Your task to perform on an android device: Search for hotels in Mexico city Image 0: 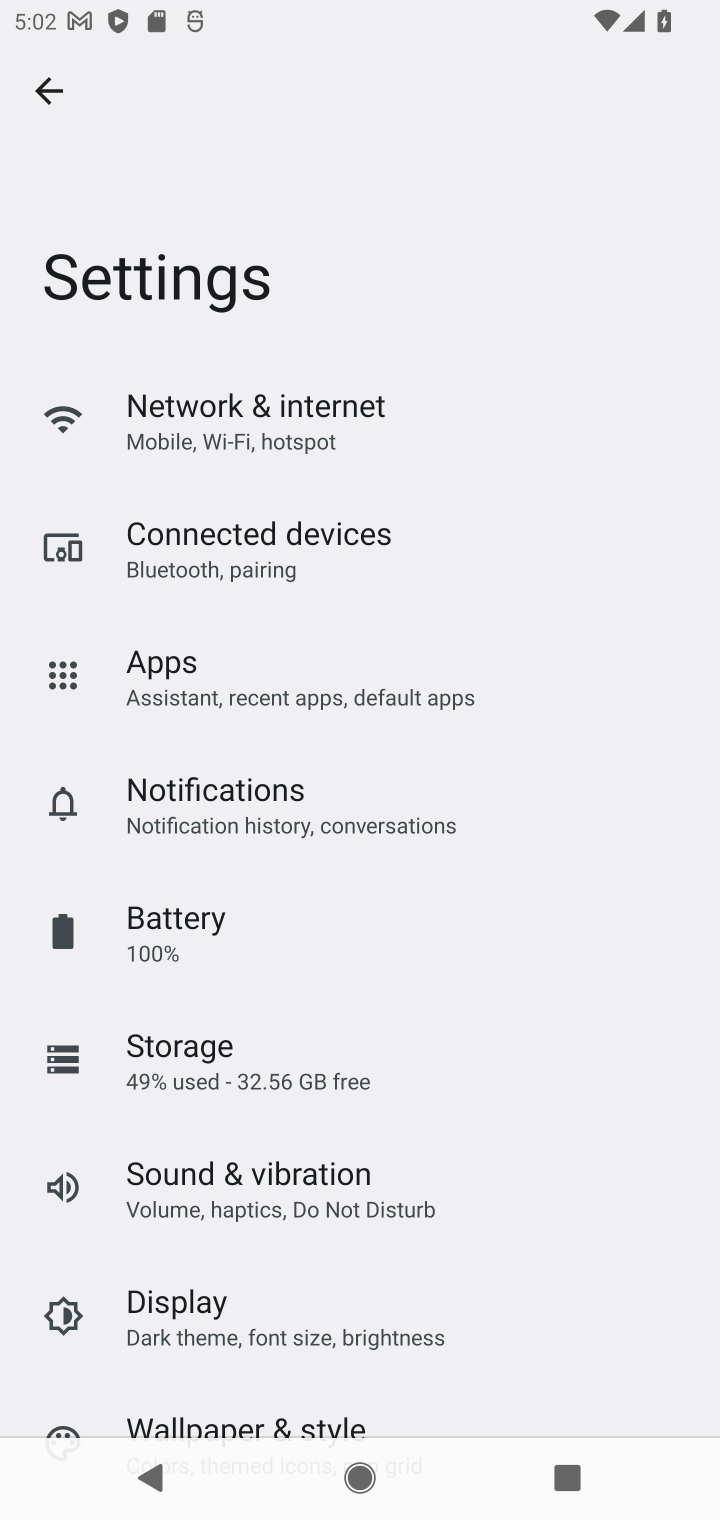
Step 0: press home button
Your task to perform on an android device: Search for hotels in Mexico city Image 1: 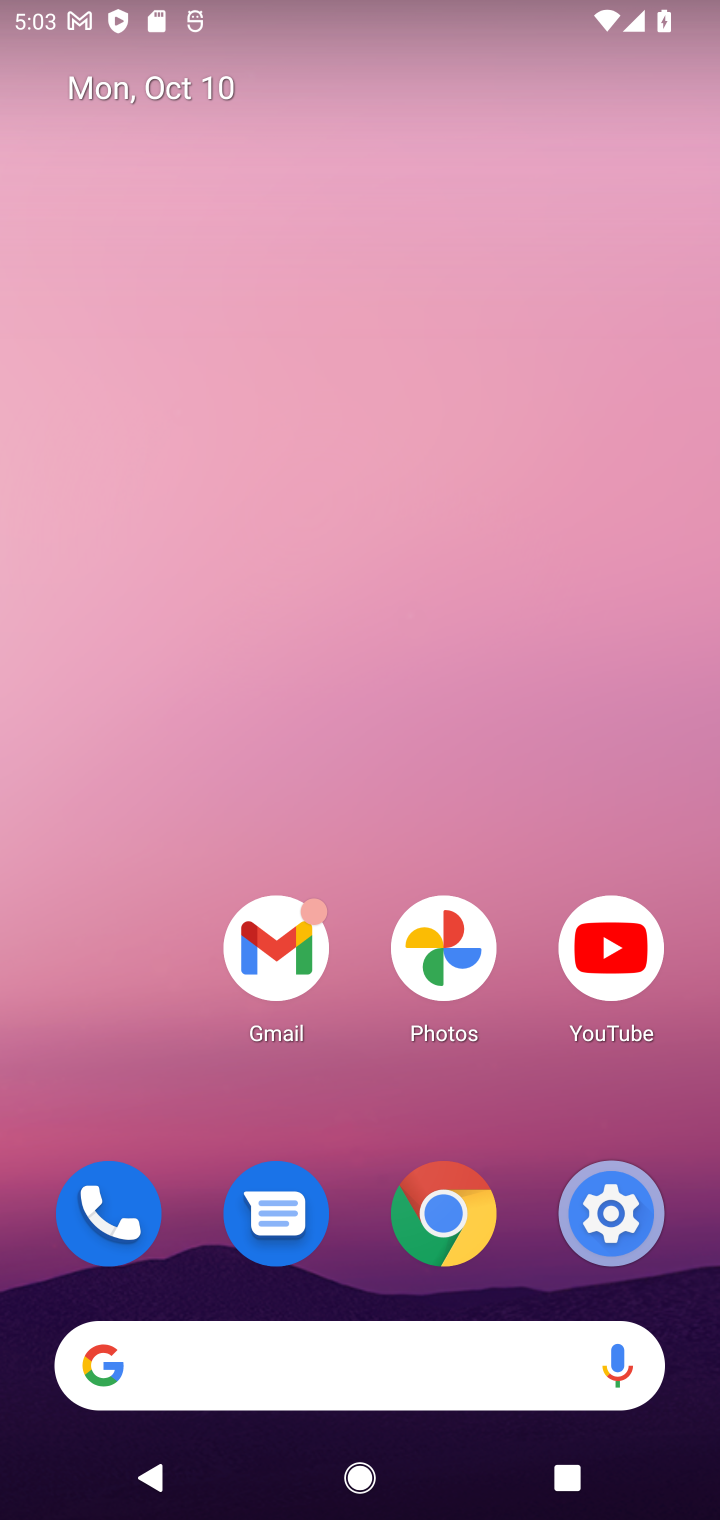
Step 1: click (239, 1354)
Your task to perform on an android device: Search for hotels in Mexico city Image 2: 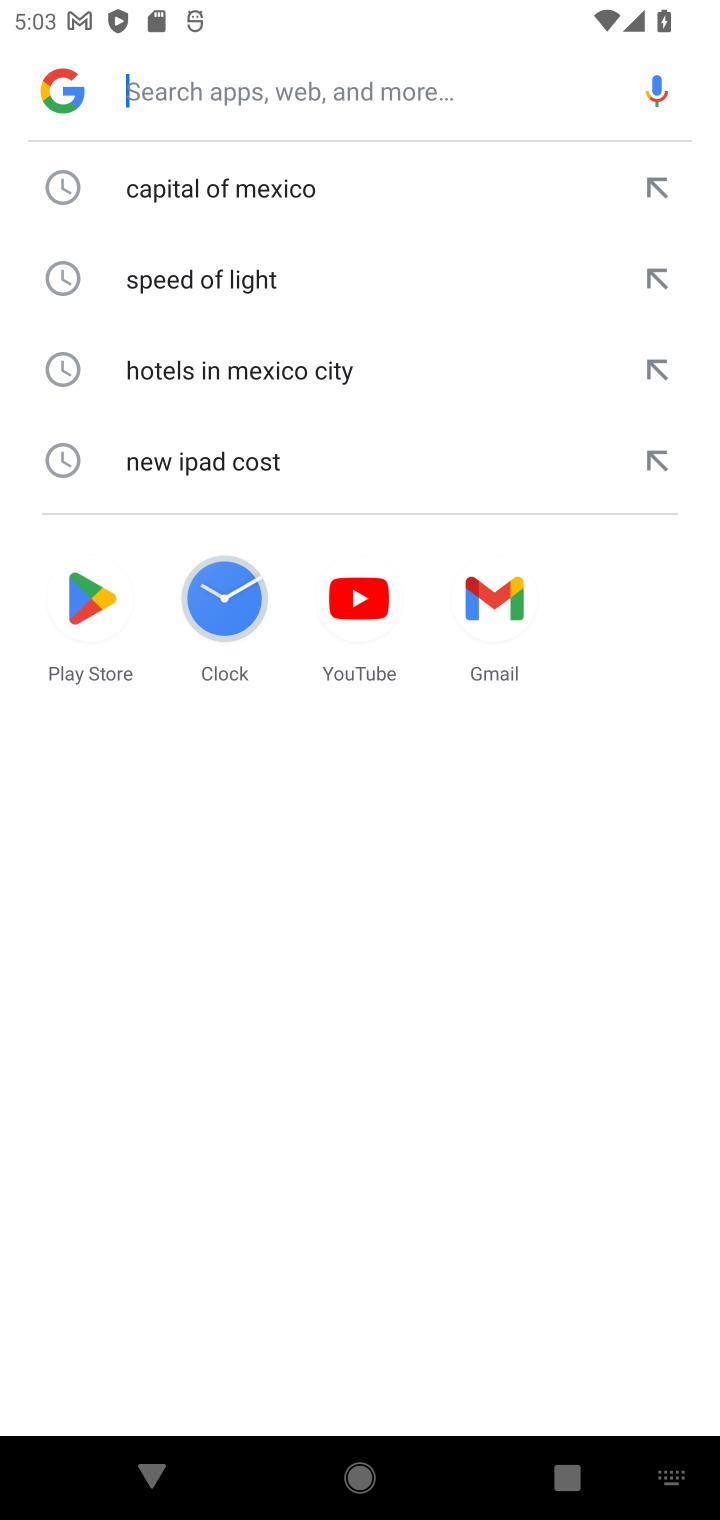
Step 2: click (199, 71)
Your task to perform on an android device: Search for hotels in Mexico city Image 3: 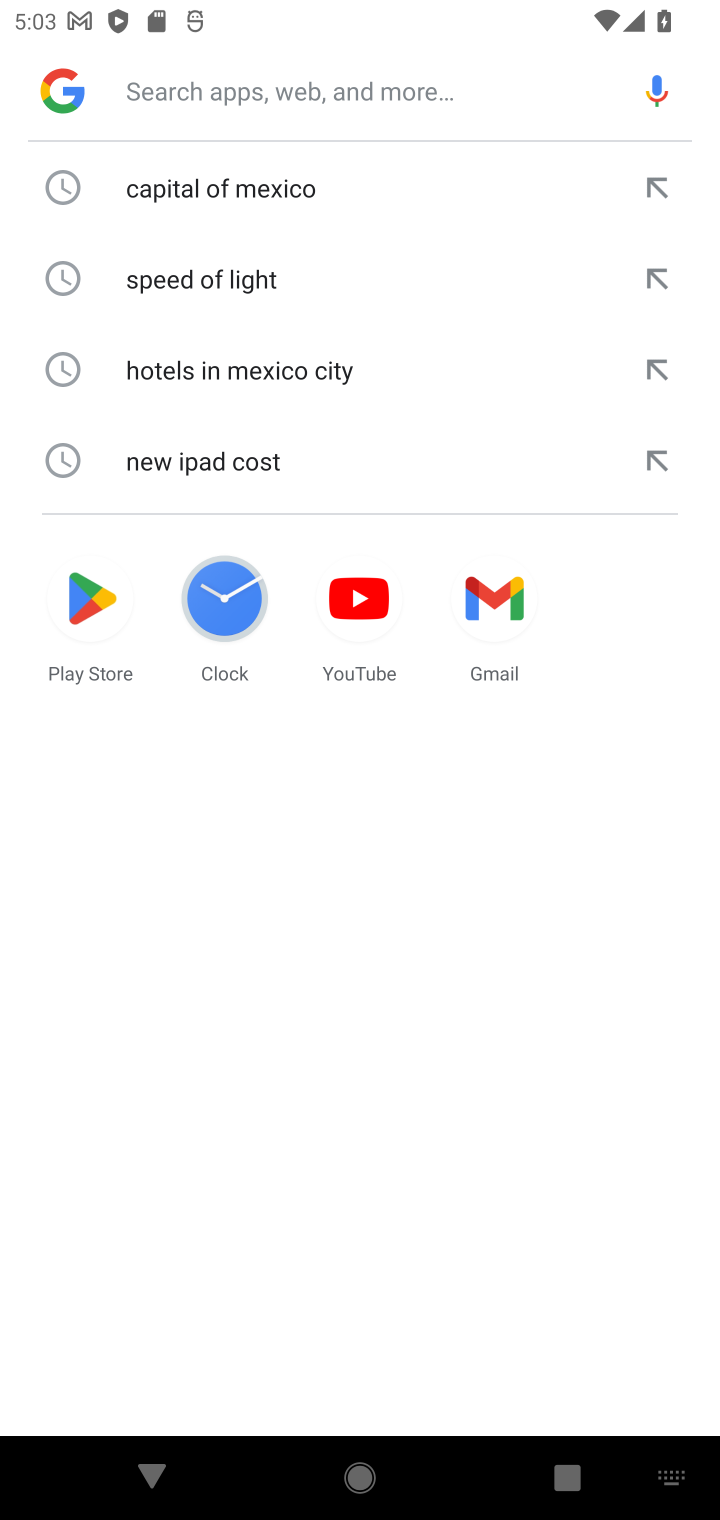
Step 3: type "hotels in Mexico city"
Your task to perform on an android device: Search for hotels in Mexico city Image 4: 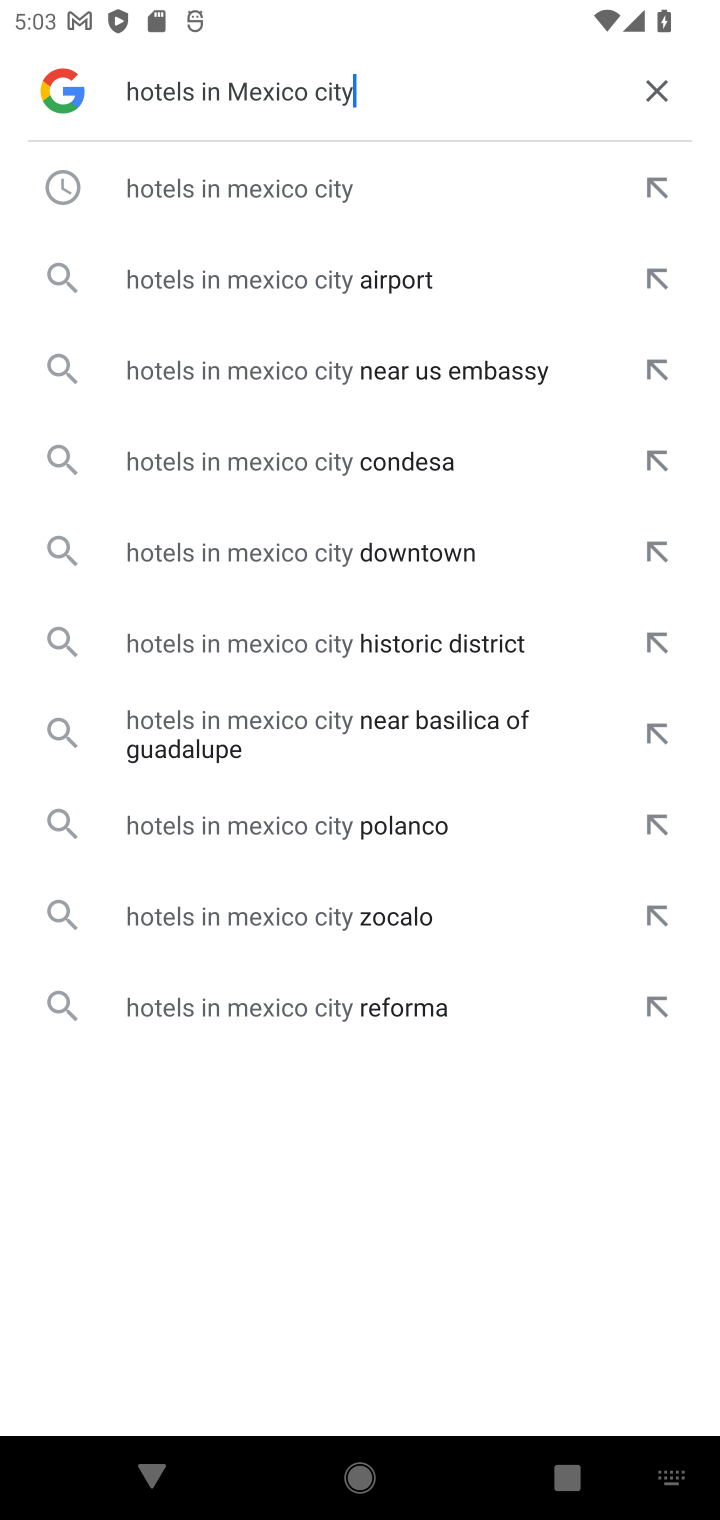
Step 4: click (328, 178)
Your task to perform on an android device: Search for hotels in Mexico city Image 5: 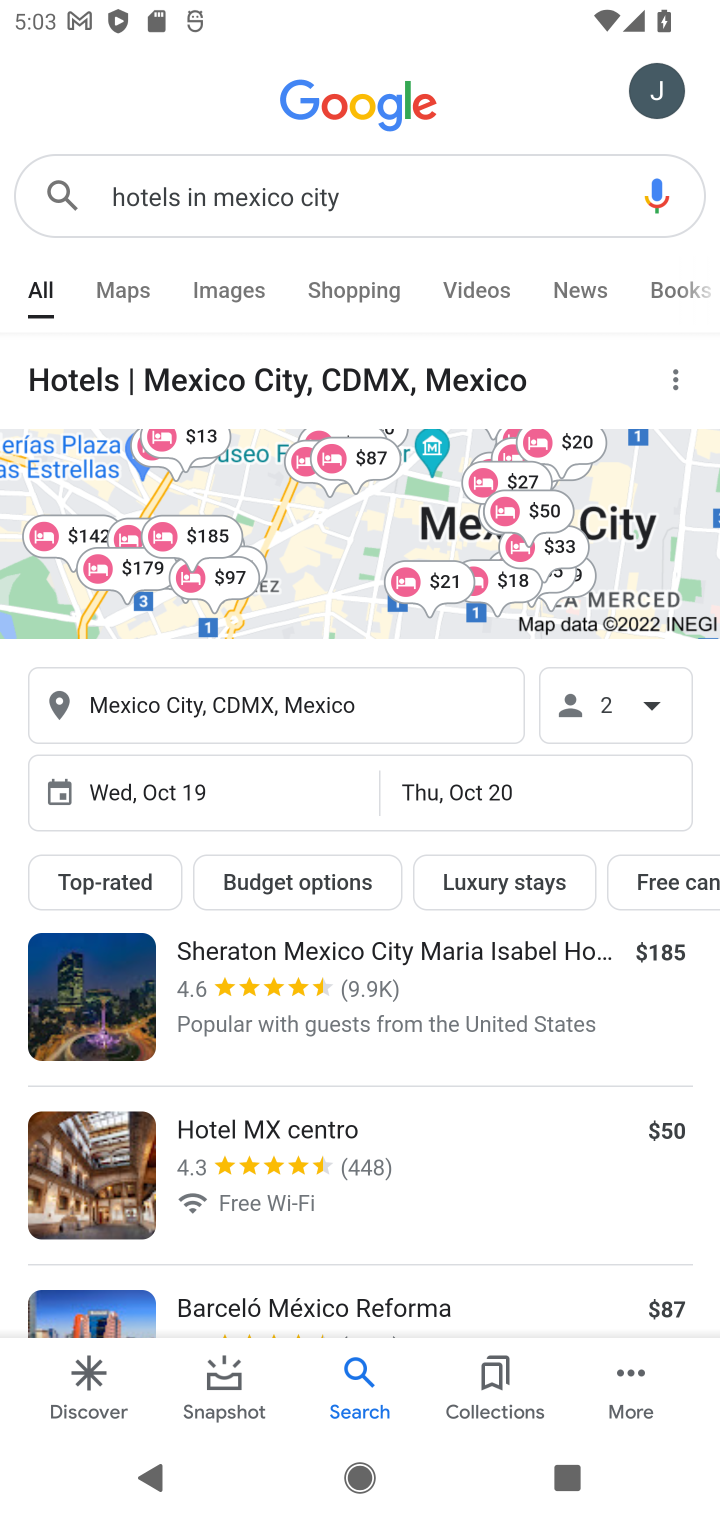
Step 5: task complete